Your task to perform on an android device: Open Amazon Image 0: 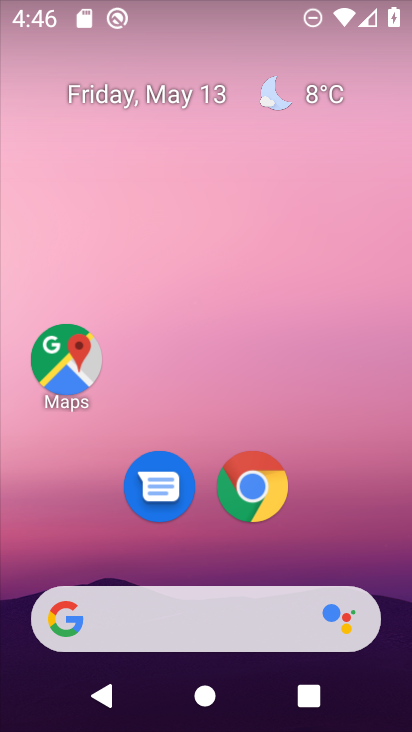
Step 0: click (291, 505)
Your task to perform on an android device: Open Amazon Image 1: 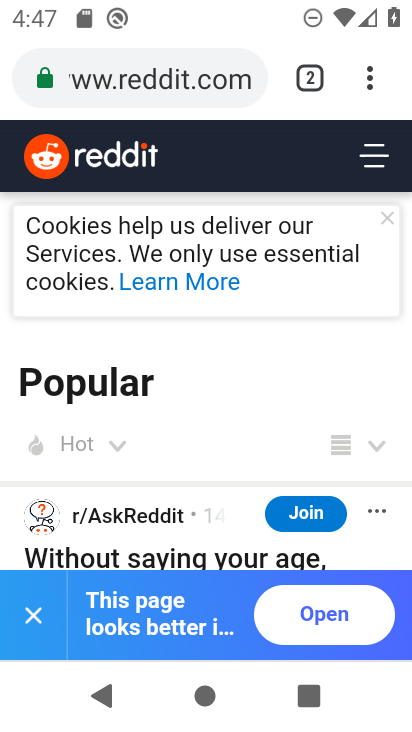
Step 1: click (293, 76)
Your task to perform on an android device: Open Amazon Image 2: 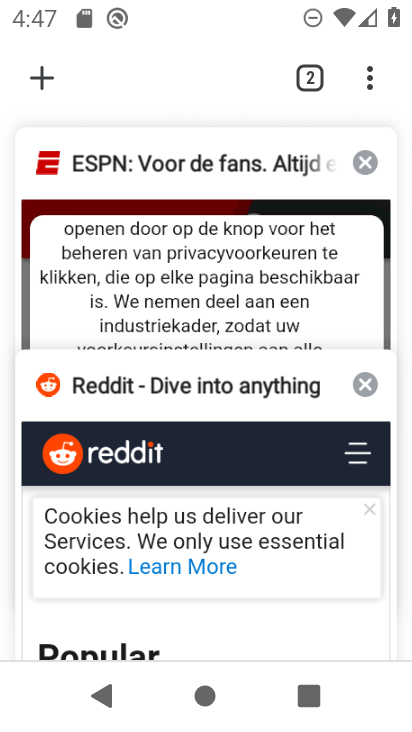
Step 2: click (301, 83)
Your task to perform on an android device: Open Amazon Image 3: 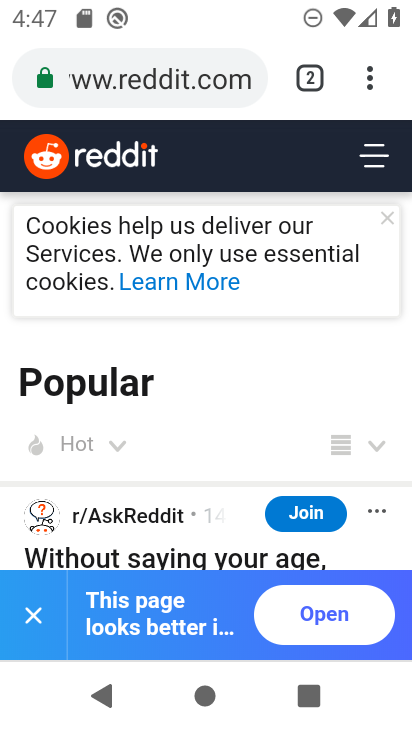
Step 3: click (319, 83)
Your task to perform on an android device: Open Amazon Image 4: 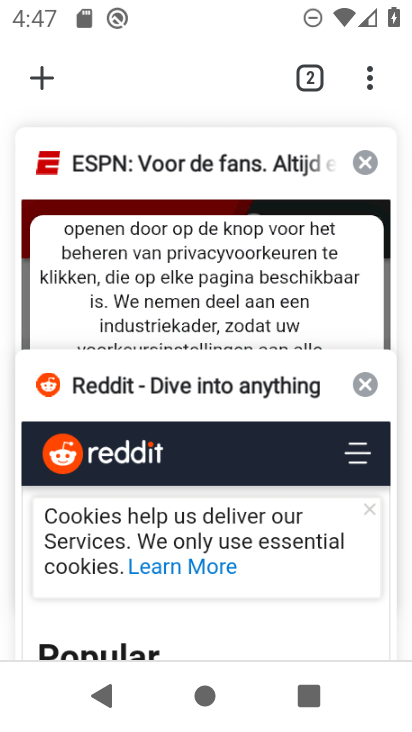
Step 4: click (38, 64)
Your task to perform on an android device: Open Amazon Image 5: 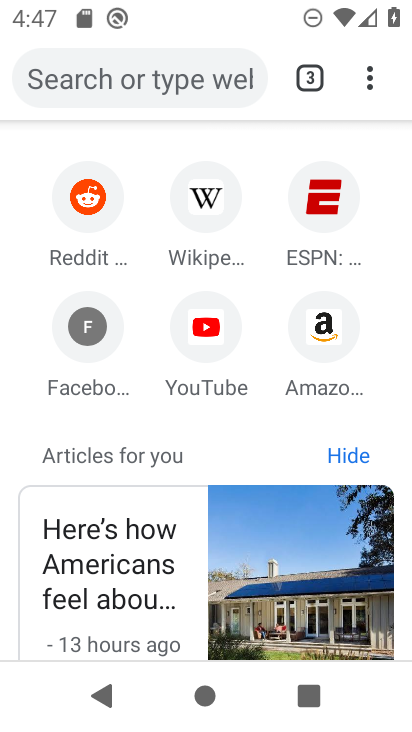
Step 5: click (344, 363)
Your task to perform on an android device: Open Amazon Image 6: 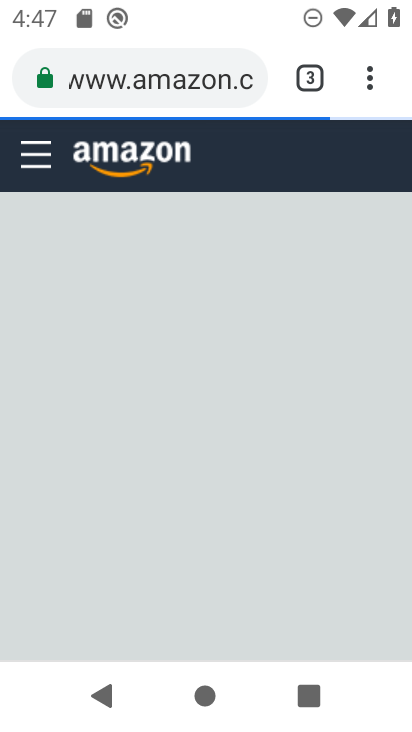
Step 6: task complete